Your task to perform on an android device: Clear all items from cart on costco. Image 0: 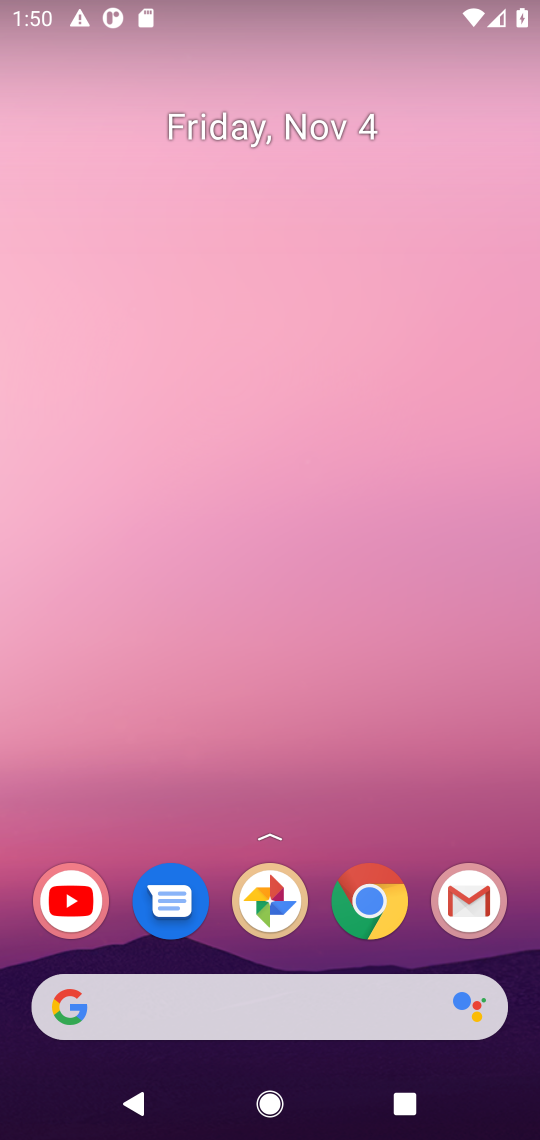
Step 0: click (391, 897)
Your task to perform on an android device: Clear all items from cart on costco. Image 1: 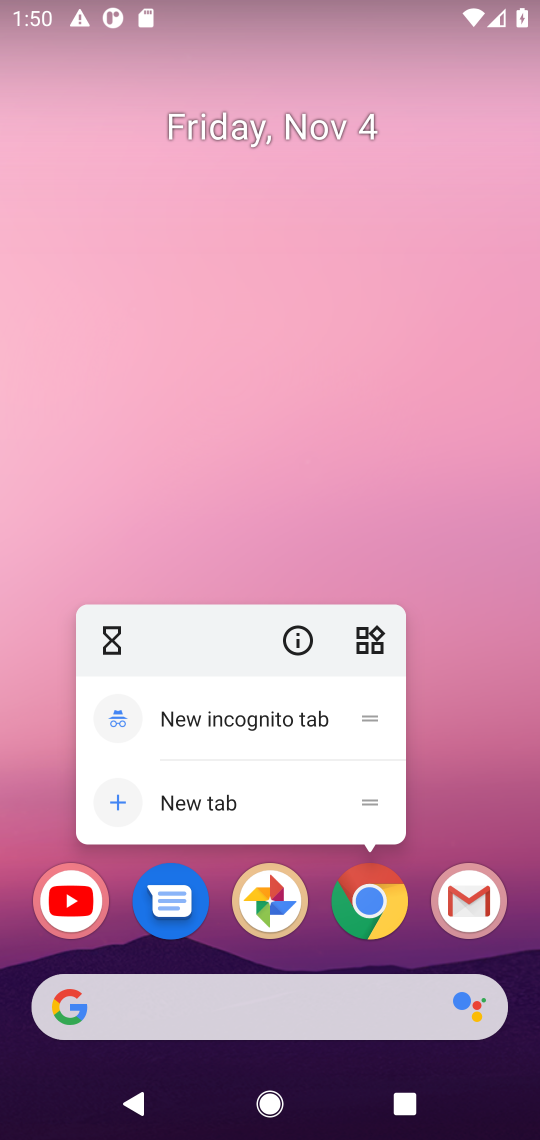
Step 1: click (391, 897)
Your task to perform on an android device: Clear all items from cart on costco. Image 2: 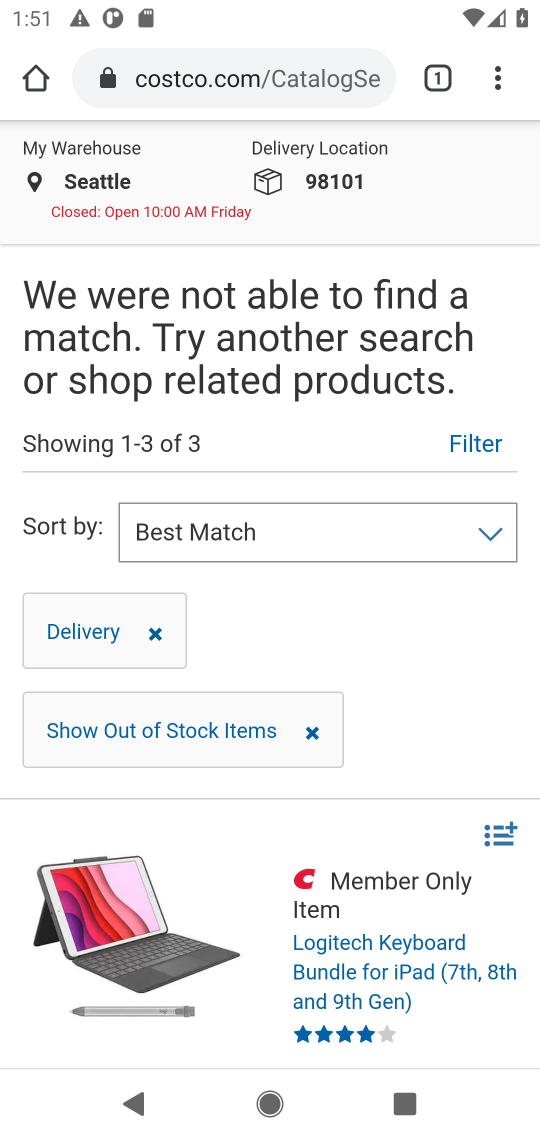
Step 2: drag from (382, 207) to (348, 774)
Your task to perform on an android device: Clear all items from cart on costco. Image 3: 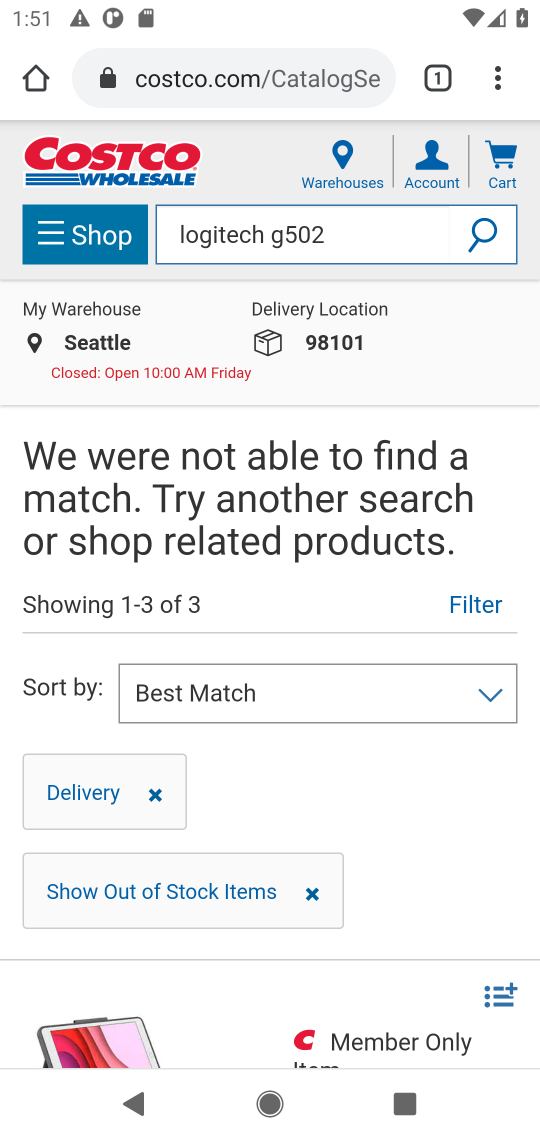
Step 3: click (498, 161)
Your task to perform on an android device: Clear all items from cart on costco. Image 4: 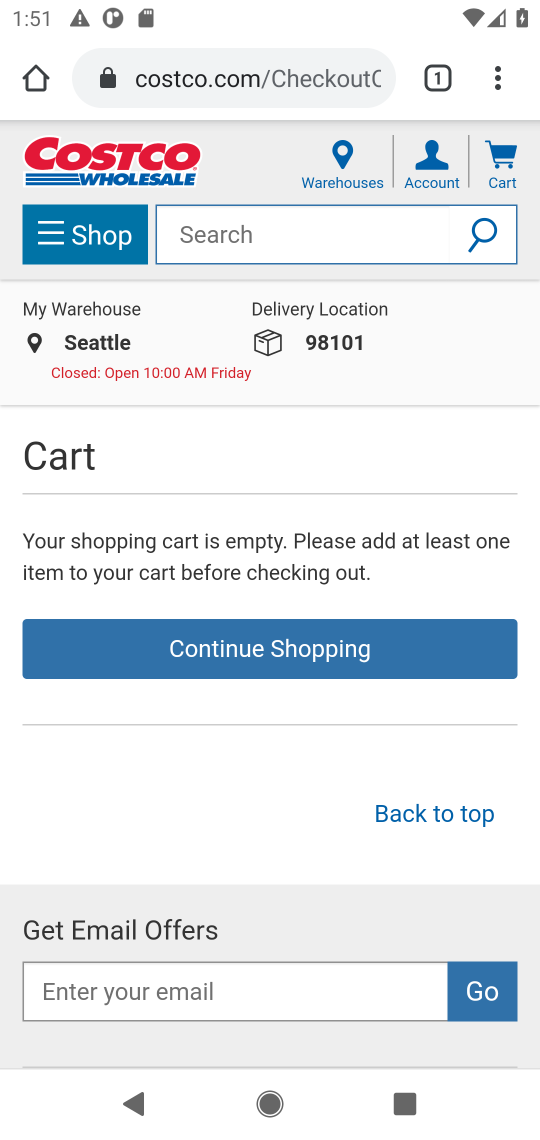
Step 4: task complete